Your task to perform on an android device: create a new album in the google photos Image 0: 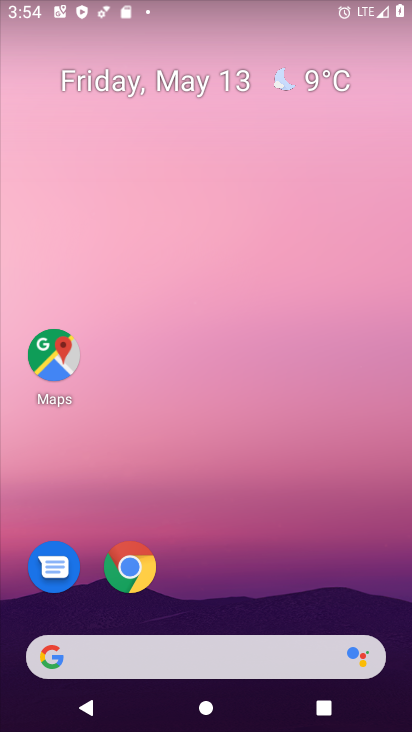
Step 0: drag from (329, 438) to (336, 2)
Your task to perform on an android device: create a new album in the google photos Image 1: 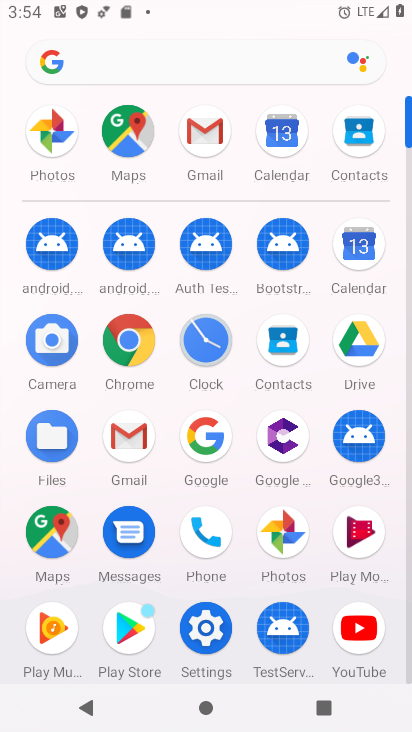
Step 1: click (51, 131)
Your task to perform on an android device: create a new album in the google photos Image 2: 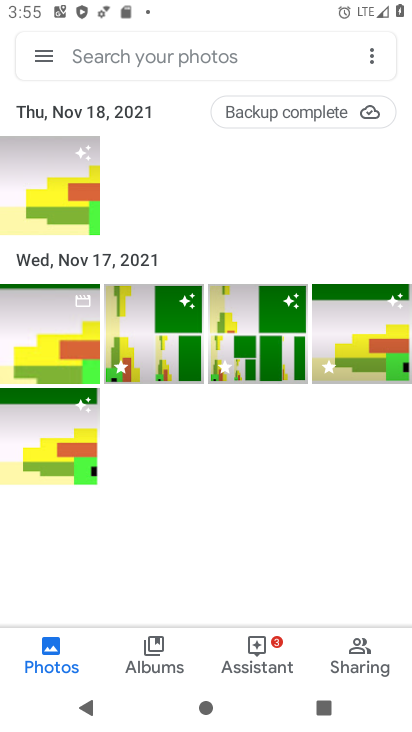
Step 2: click (167, 342)
Your task to perform on an android device: create a new album in the google photos Image 3: 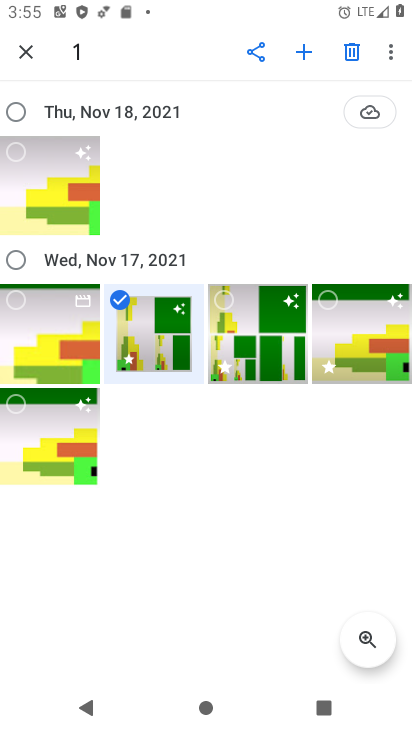
Step 3: click (304, 50)
Your task to perform on an android device: create a new album in the google photos Image 4: 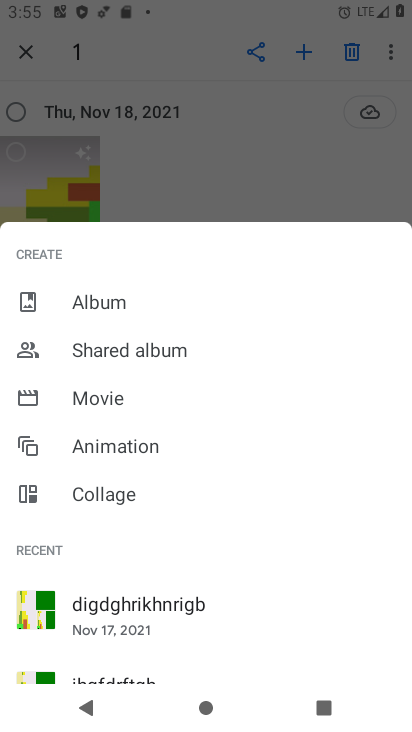
Step 4: click (113, 290)
Your task to perform on an android device: create a new album in the google photos Image 5: 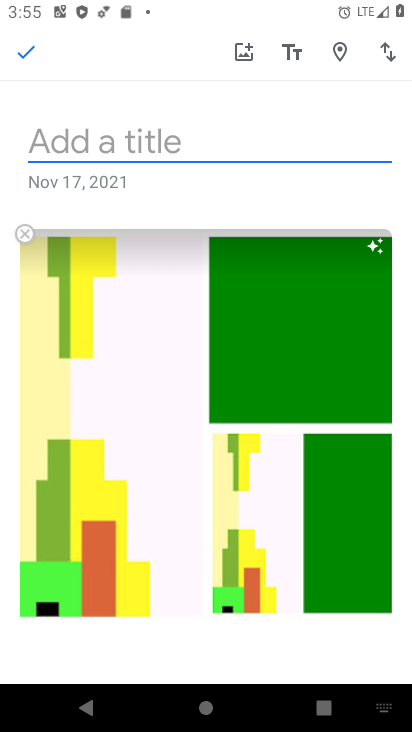
Step 5: click (101, 145)
Your task to perform on an android device: create a new album in the google photos Image 6: 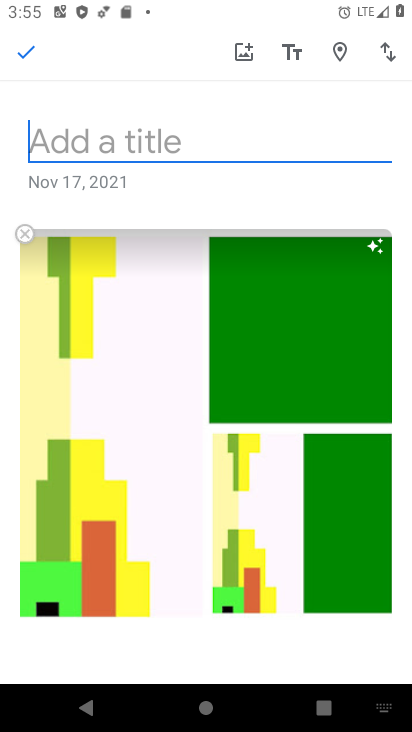
Step 6: type "abc"
Your task to perform on an android device: create a new album in the google photos Image 7: 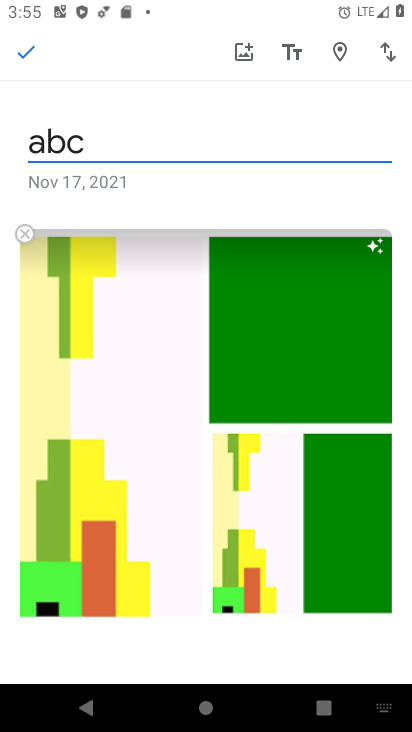
Step 7: click (13, 57)
Your task to perform on an android device: create a new album in the google photos Image 8: 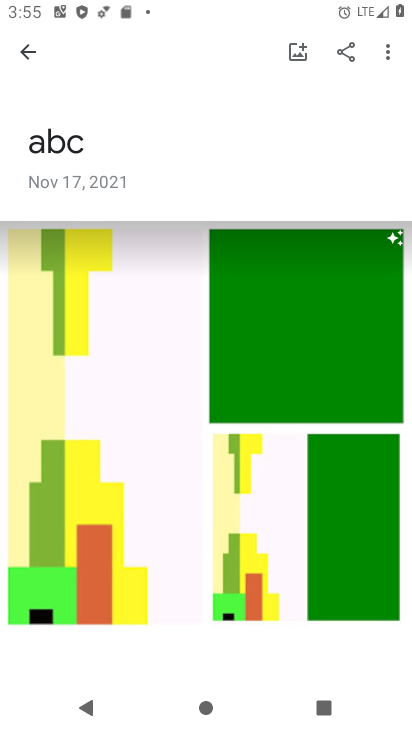
Step 8: task complete